Your task to perform on an android device: open a bookmark in the chrome app Image 0: 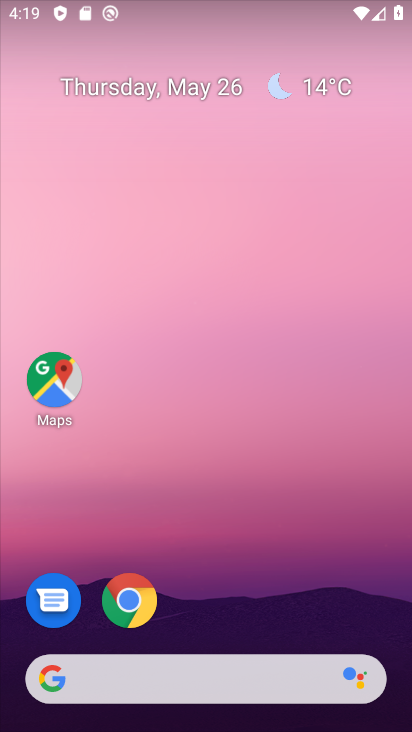
Step 0: click (134, 616)
Your task to perform on an android device: open a bookmark in the chrome app Image 1: 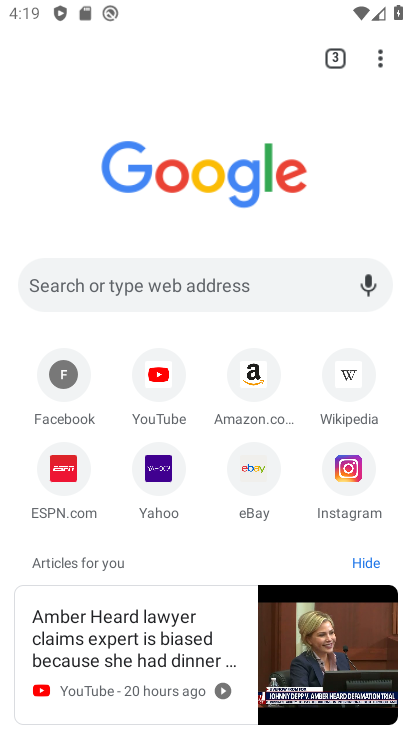
Step 1: click (394, 49)
Your task to perform on an android device: open a bookmark in the chrome app Image 2: 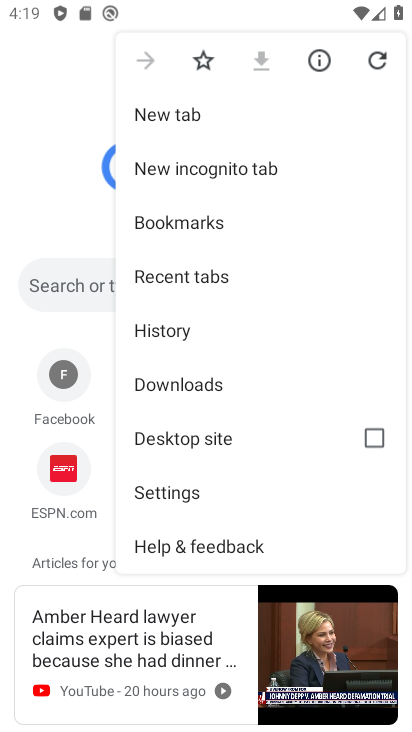
Step 2: click (157, 231)
Your task to perform on an android device: open a bookmark in the chrome app Image 3: 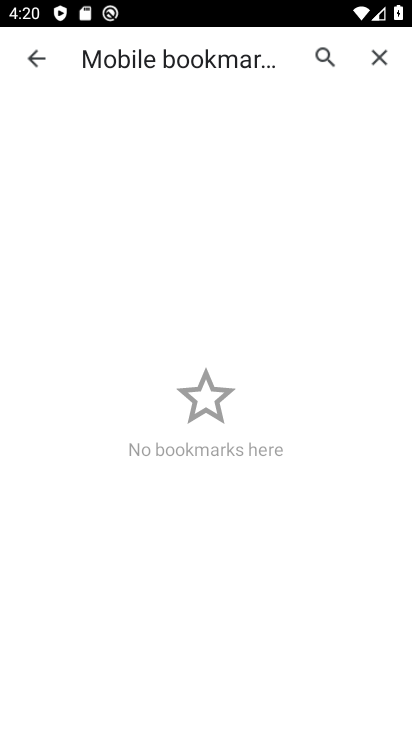
Step 3: task complete